Your task to perform on an android device: uninstall "Pandora - Music & Podcasts" Image 0: 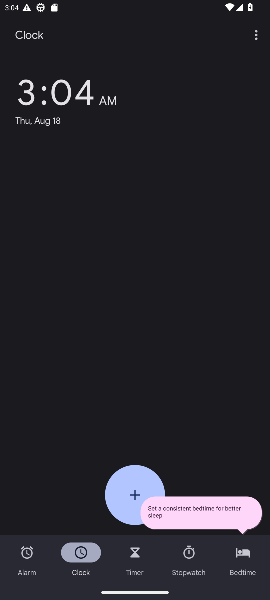
Step 0: press back button
Your task to perform on an android device: uninstall "Pandora - Music & Podcasts" Image 1: 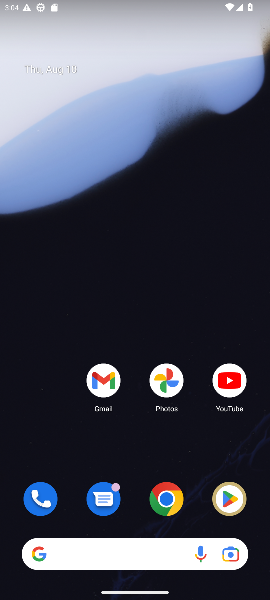
Step 1: click (223, 493)
Your task to perform on an android device: uninstall "Pandora - Music & Podcasts" Image 2: 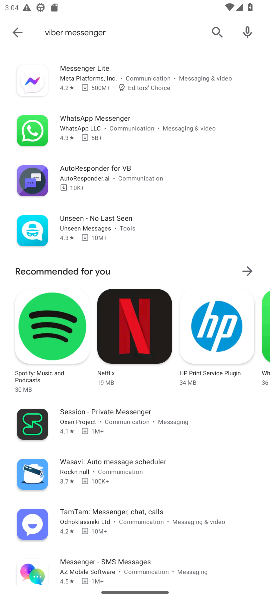
Step 2: click (214, 23)
Your task to perform on an android device: uninstall "Pandora - Music & Podcasts" Image 3: 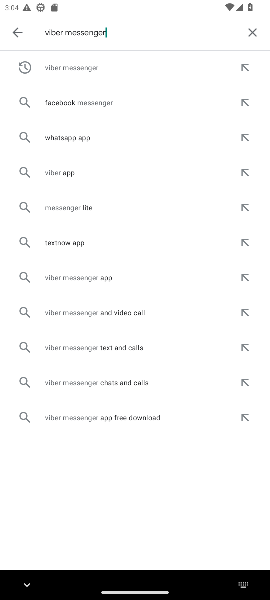
Step 3: click (254, 31)
Your task to perform on an android device: uninstall "Pandora - Music & Podcasts" Image 4: 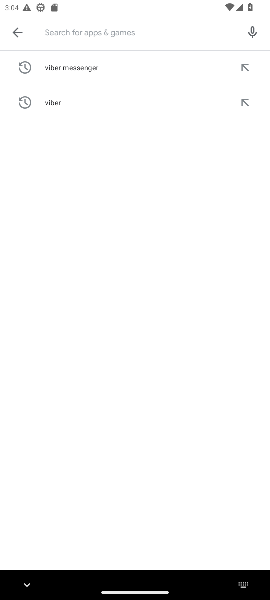
Step 4: click (56, 32)
Your task to perform on an android device: uninstall "Pandora - Music & Podcasts" Image 5: 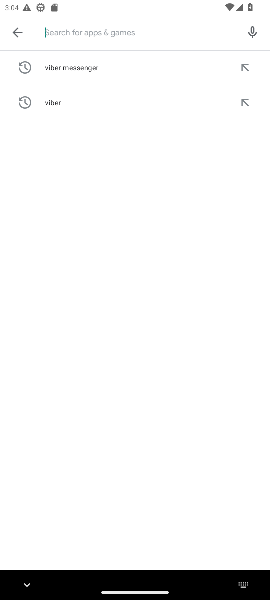
Step 5: type "pandora"
Your task to perform on an android device: uninstall "Pandora - Music & Podcasts" Image 6: 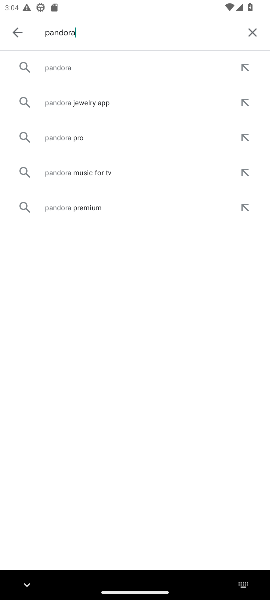
Step 6: click (70, 67)
Your task to perform on an android device: uninstall "Pandora - Music & Podcasts" Image 7: 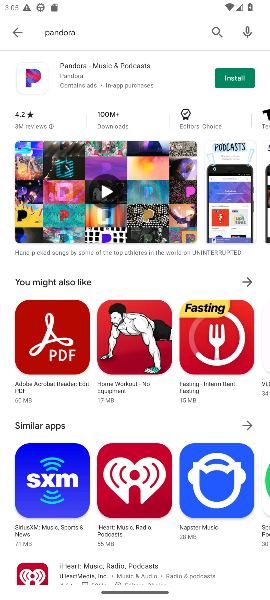
Step 7: task complete